Your task to perform on an android device: What's the weather today? Image 0: 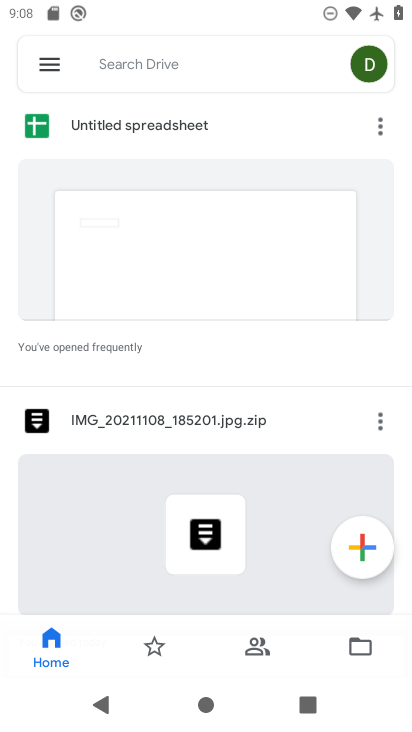
Step 0: press home button
Your task to perform on an android device: What's the weather today? Image 1: 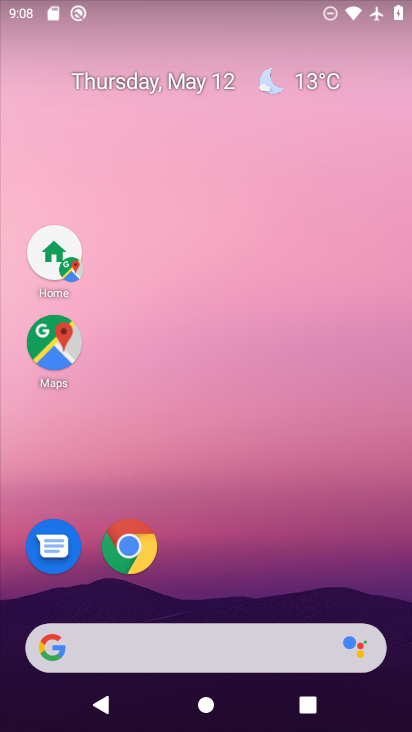
Step 1: click (312, 84)
Your task to perform on an android device: What's the weather today? Image 2: 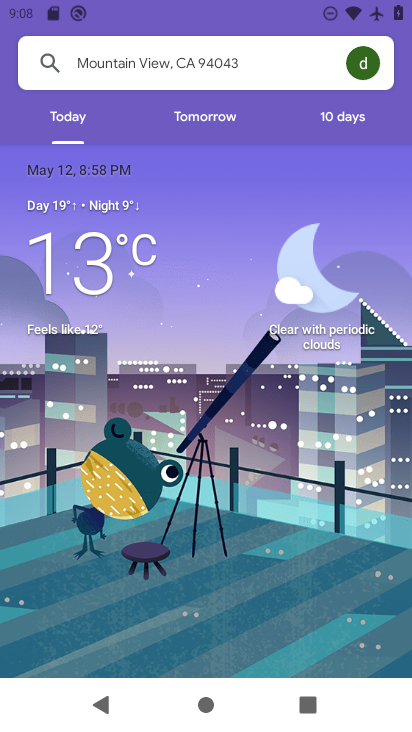
Step 2: task complete